Your task to perform on an android device: check storage Image 0: 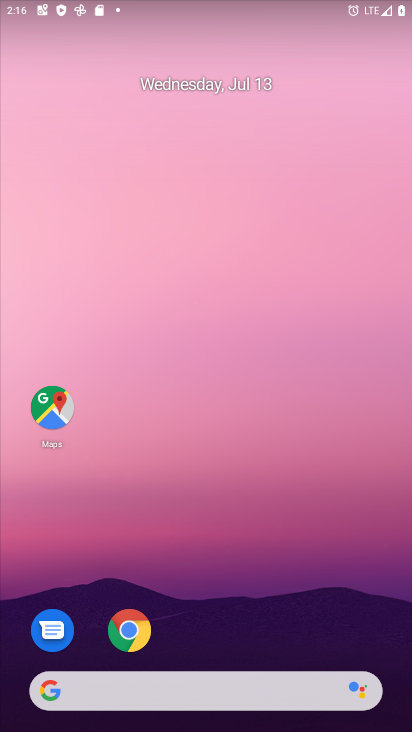
Step 0: drag from (368, 650) to (277, 32)
Your task to perform on an android device: check storage Image 1: 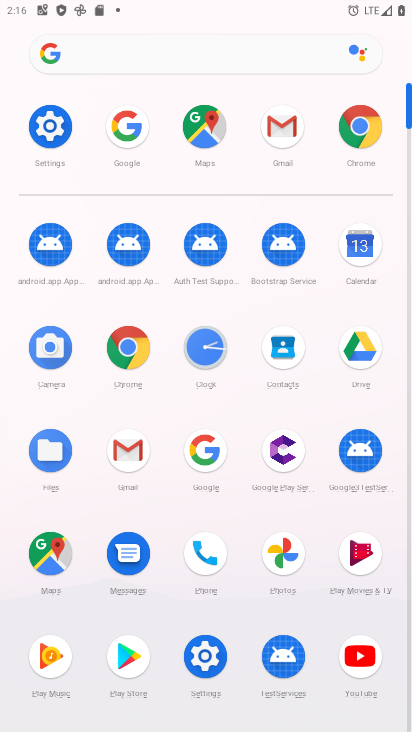
Step 1: click (193, 629)
Your task to perform on an android device: check storage Image 2: 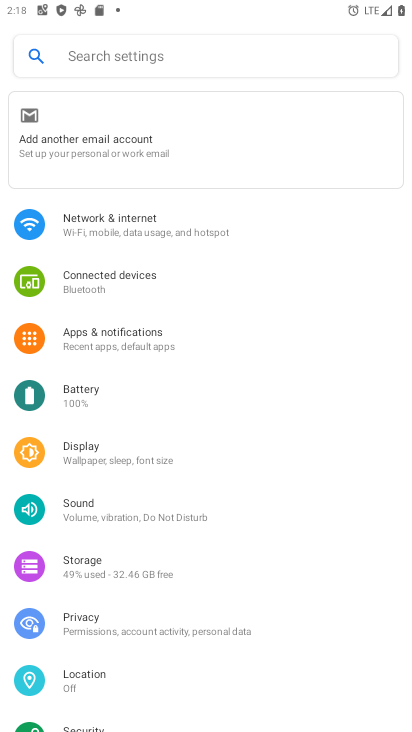
Step 2: click (95, 594)
Your task to perform on an android device: check storage Image 3: 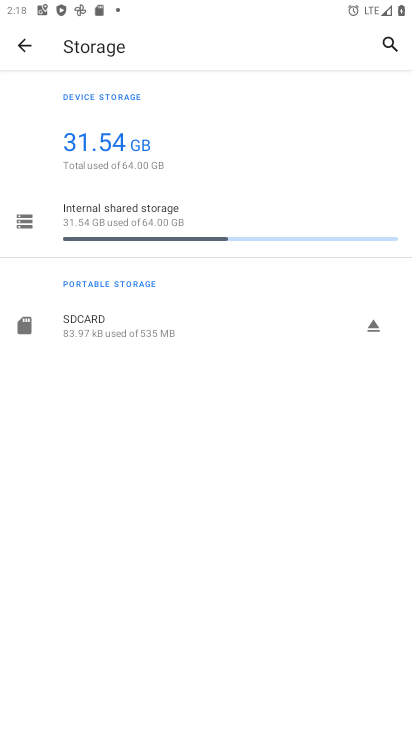
Step 3: click (136, 220)
Your task to perform on an android device: check storage Image 4: 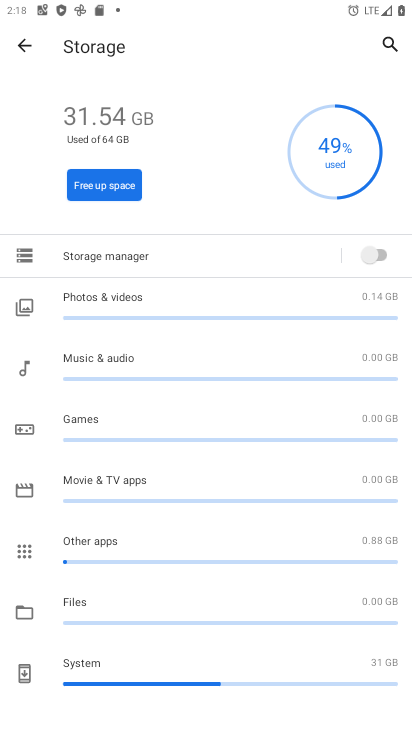
Step 4: task complete